Your task to perform on an android device: make emails show in primary in the gmail app Image 0: 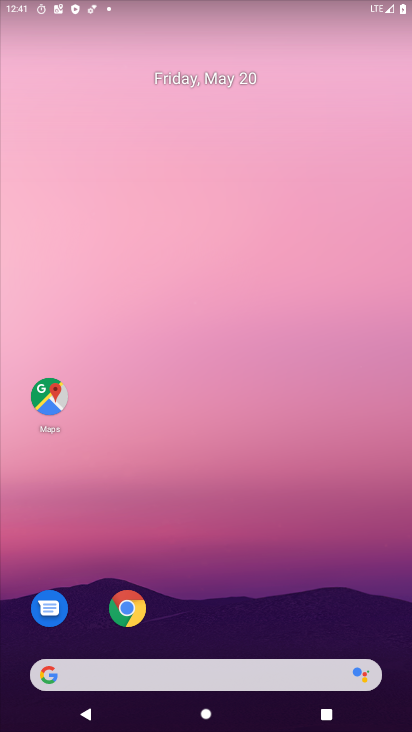
Step 0: drag from (313, 557) to (296, 92)
Your task to perform on an android device: make emails show in primary in the gmail app Image 1: 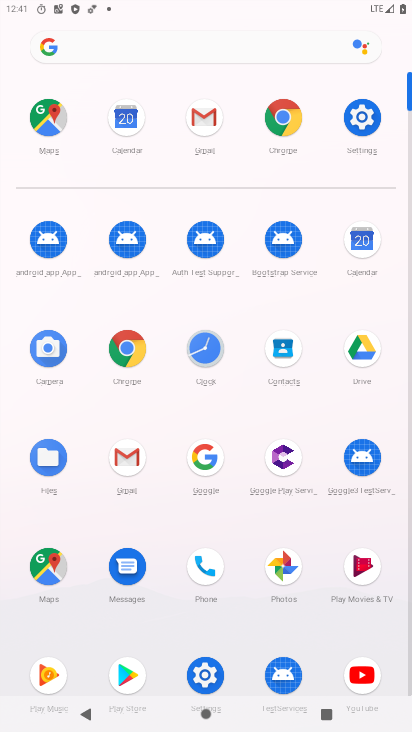
Step 1: click (132, 460)
Your task to perform on an android device: make emails show in primary in the gmail app Image 2: 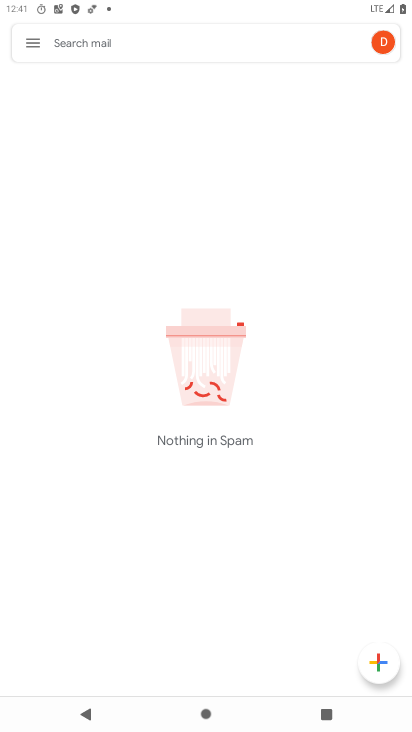
Step 2: click (22, 34)
Your task to perform on an android device: make emails show in primary in the gmail app Image 3: 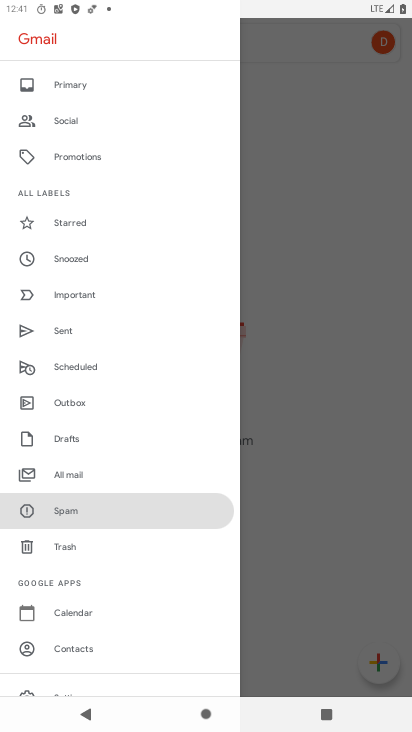
Step 3: click (106, 92)
Your task to perform on an android device: make emails show in primary in the gmail app Image 4: 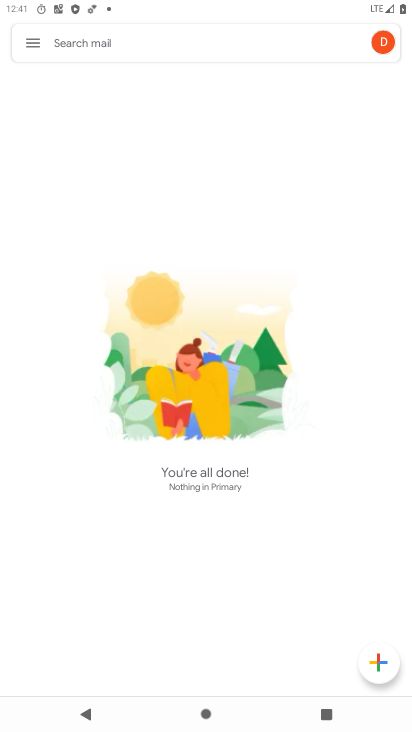
Step 4: task complete